Your task to perform on an android device: Find coffee shops on Maps Image 0: 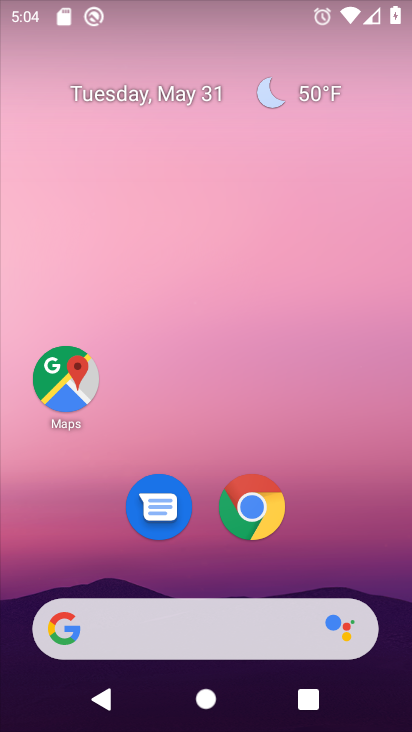
Step 0: click (56, 376)
Your task to perform on an android device: Find coffee shops on Maps Image 1: 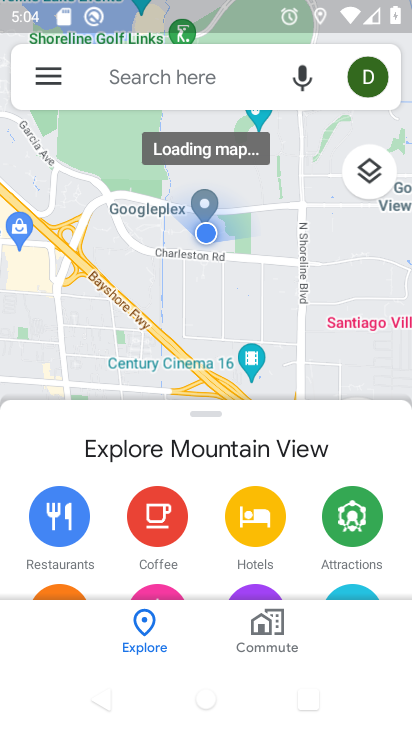
Step 1: click (203, 54)
Your task to perform on an android device: Find coffee shops on Maps Image 2: 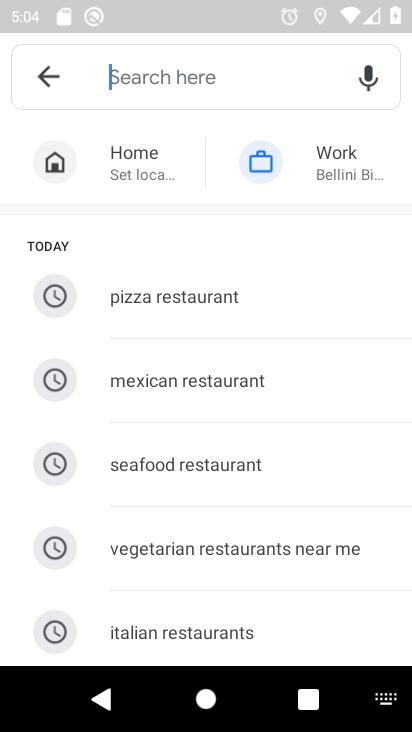
Step 2: drag from (218, 567) to (280, 574)
Your task to perform on an android device: Find coffee shops on Maps Image 3: 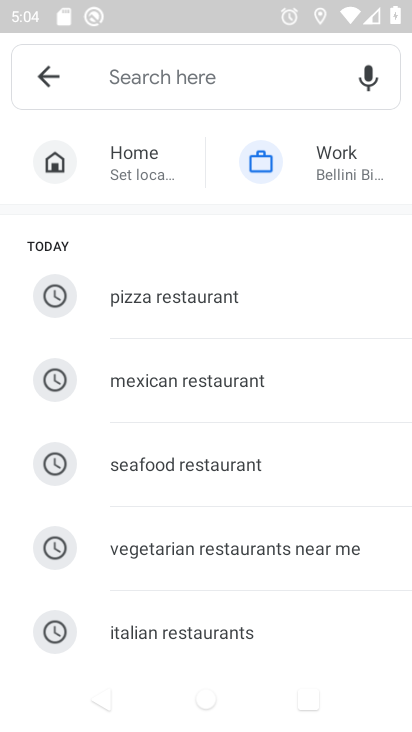
Step 3: click (224, 67)
Your task to perform on an android device: Find coffee shops on Maps Image 4: 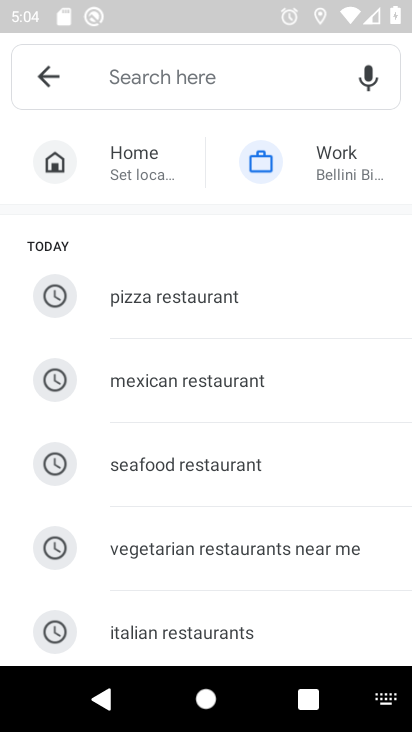
Step 4: type "coffee"
Your task to perform on an android device: Find coffee shops on Maps Image 5: 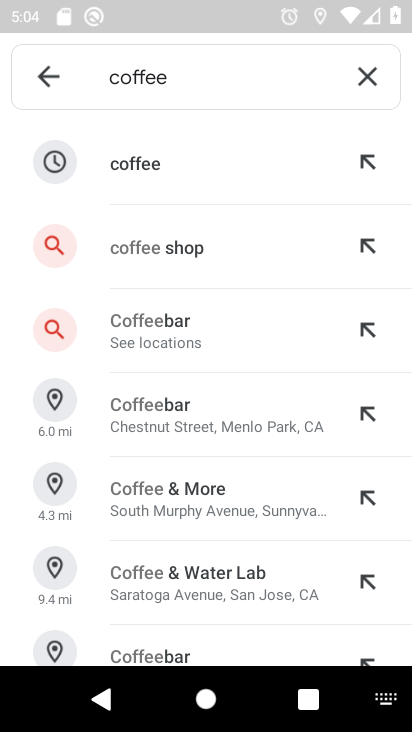
Step 5: click (190, 236)
Your task to perform on an android device: Find coffee shops on Maps Image 6: 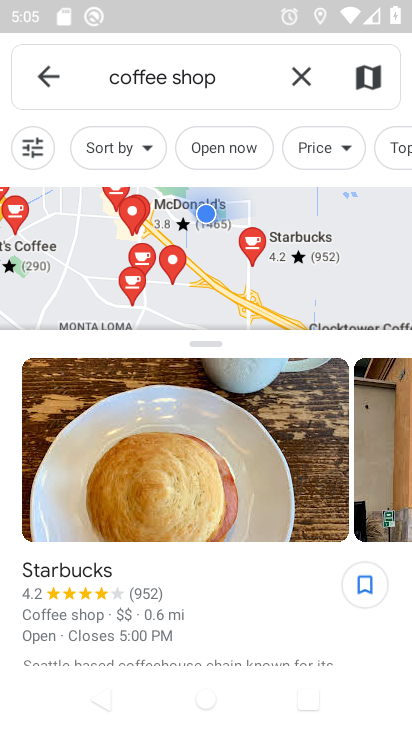
Step 6: task complete